Your task to perform on an android device: check google app version Image 0: 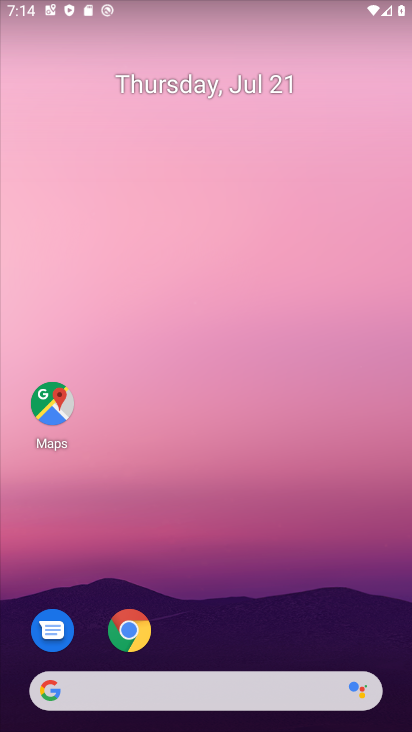
Step 0: drag from (290, 663) to (310, 91)
Your task to perform on an android device: check google app version Image 1: 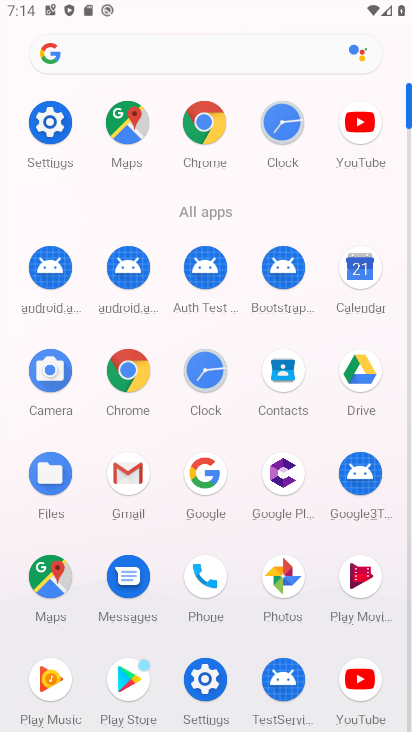
Step 1: click (211, 488)
Your task to perform on an android device: check google app version Image 2: 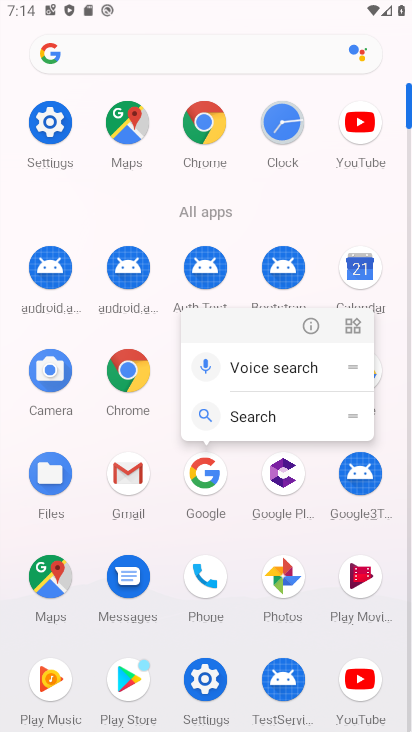
Step 2: click (308, 322)
Your task to perform on an android device: check google app version Image 3: 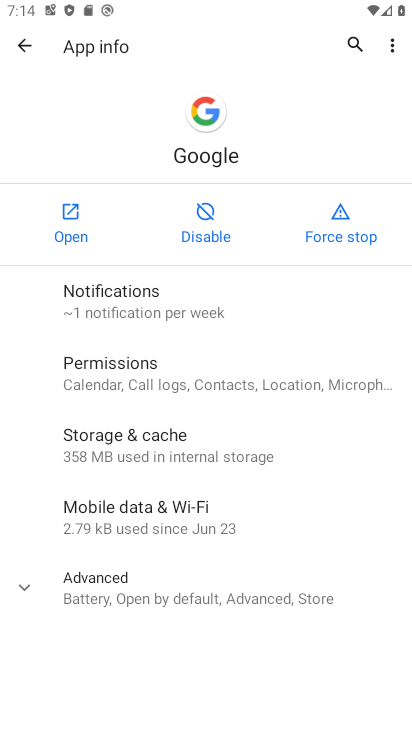
Step 3: click (236, 590)
Your task to perform on an android device: check google app version Image 4: 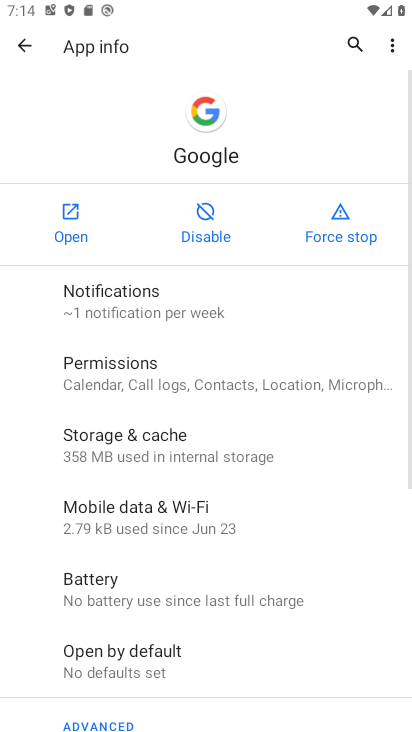
Step 4: task complete